Your task to perform on an android device: create a new album in the google photos Image 0: 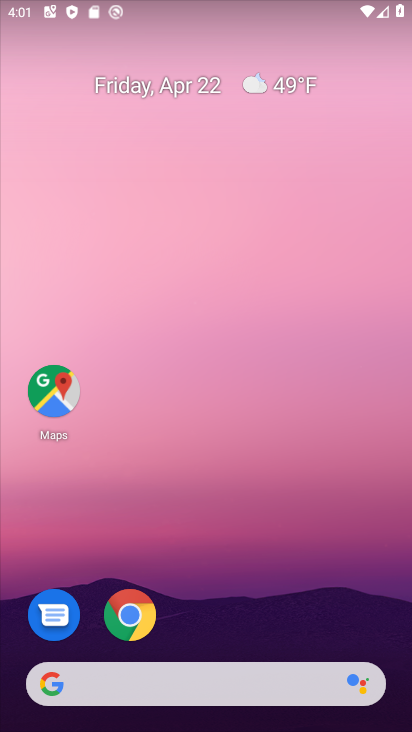
Step 0: drag from (231, 722) to (212, 222)
Your task to perform on an android device: create a new album in the google photos Image 1: 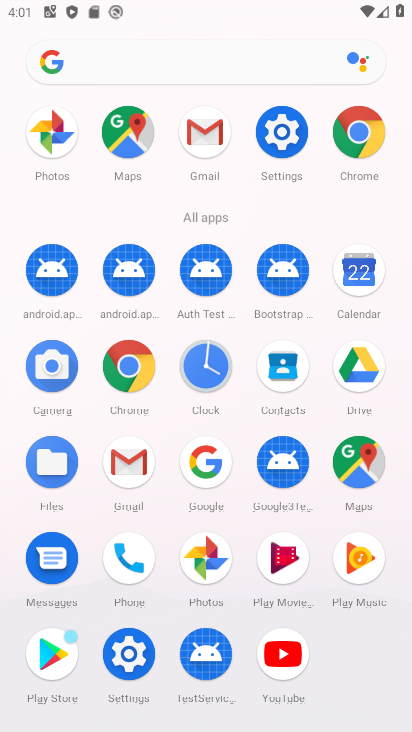
Step 1: click (53, 133)
Your task to perform on an android device: create a new album in the google photos Image 2: 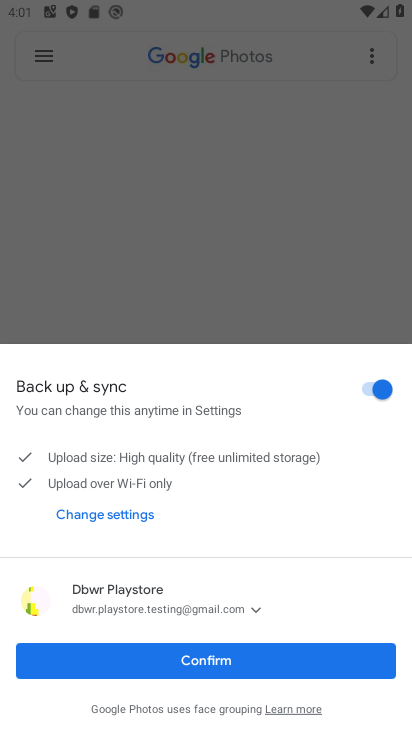
Step 2: click (200, 667)
Your task to perform on an android device: create a new album in the google photos Image 3: 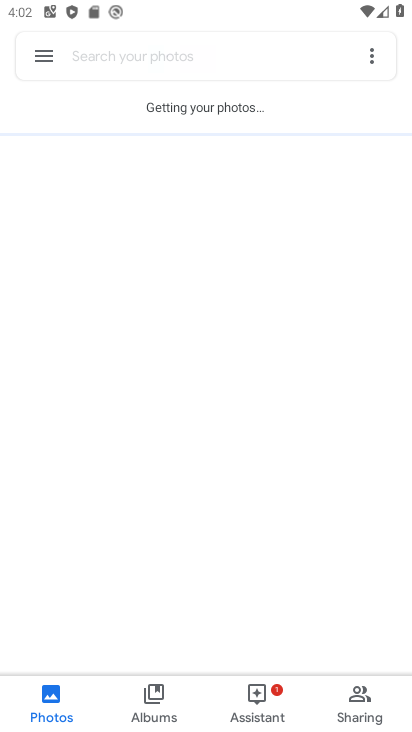
Step 3: click (372, 55)
Your task to perform on an android device: create a new album in the google photos Image 4: 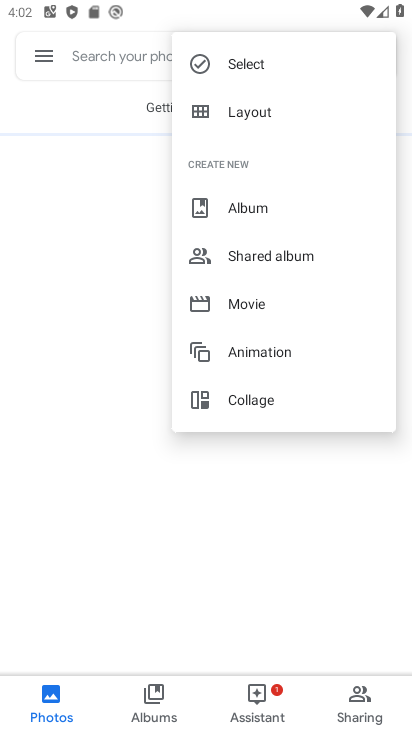
Step 4: click (252, 207)
Your task to perform on an android device: create a new album in the google photos Image 5: 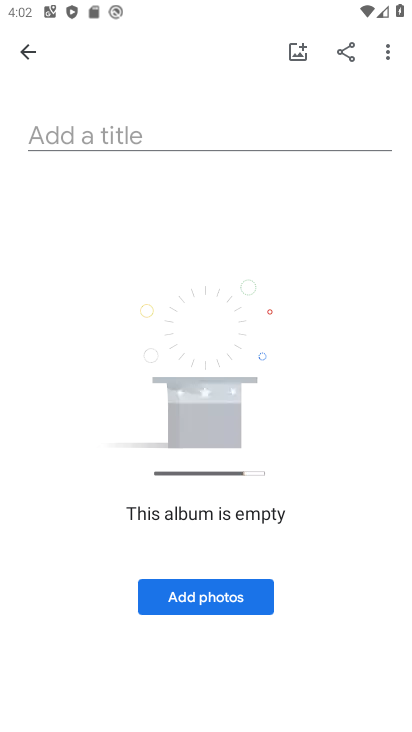
Step 5: click (160, 138)
Your task to perform on an android device: create a new album in the google photos Image 6: 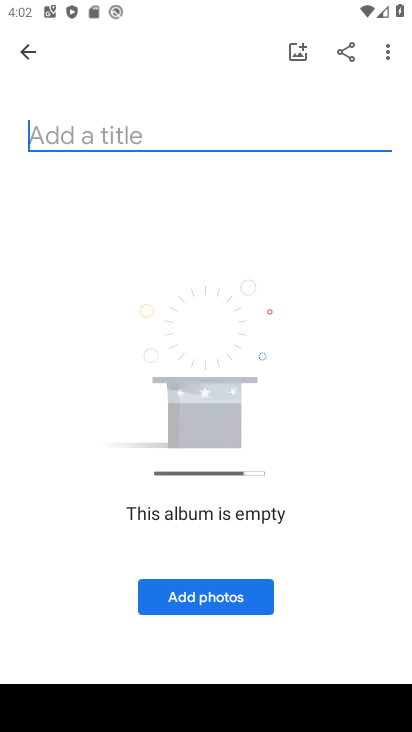
Step 6: type "naazu"
Your task to perform on an android device: create a new album in the google photos Image 7: 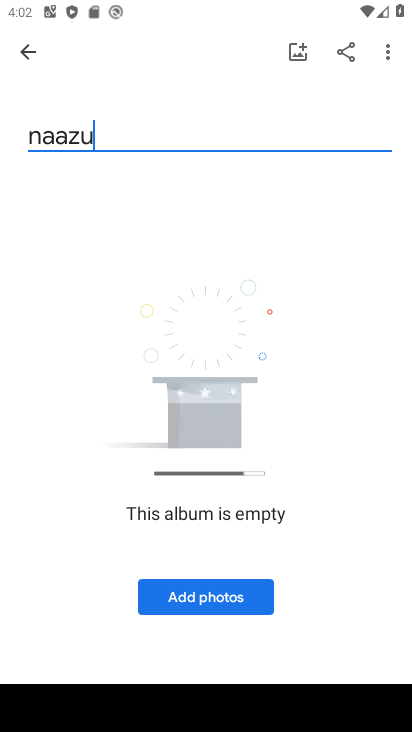
Step 7: click (319, 341)
Your task to perform on an android device: create a new album in the google photos Image 8: 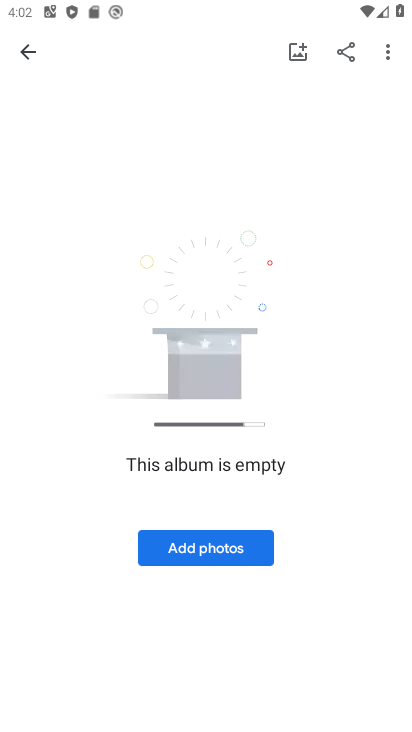
Step 8: click (222, 598)
Your task to perform on an android device: create a new album in the google photos Image 9: 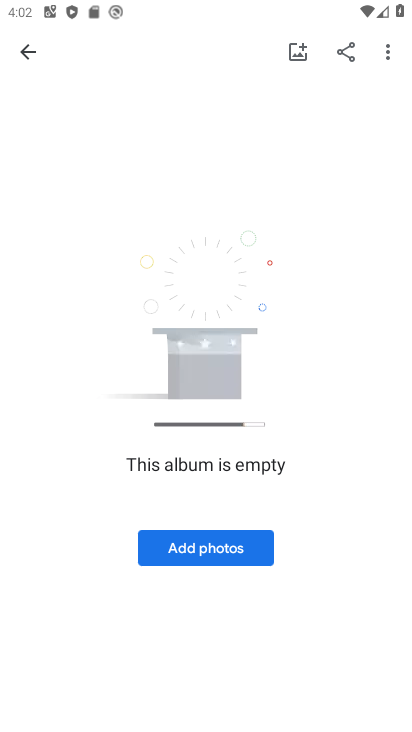
Step 9: click (211, 552)
Your task to perform on an android device: create a new album in the google photos Image 10: 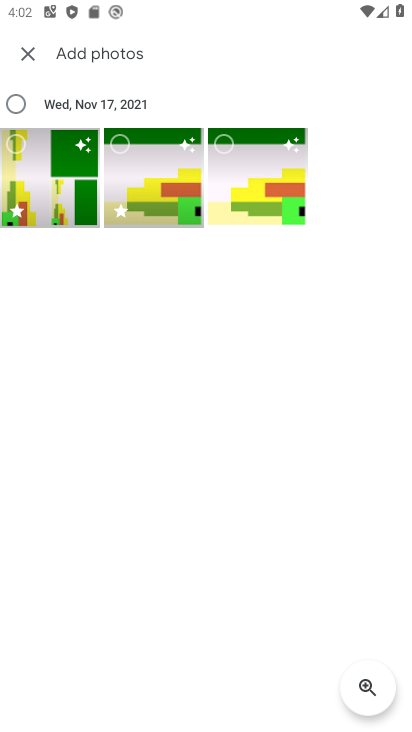
Step 10: click (222, 137)
Your task to perform on an android device: create a new album in the google photos Image 11: 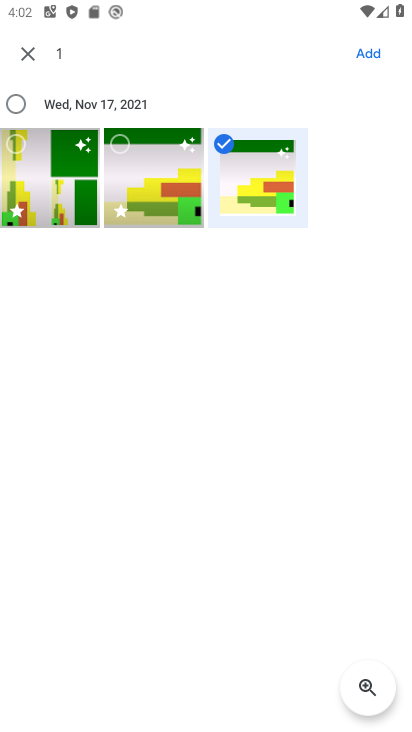
Step 11: click (370, 52)
Your task to perform on an android device: create a new album in the google photos Image 12: 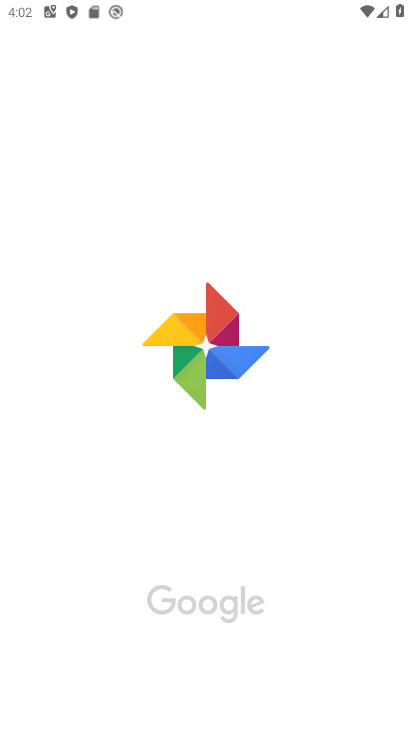
Step 12: task complete